Your task to perform on an android device: uninstall "TextNow: Call + Text Unlimited" Image 0: 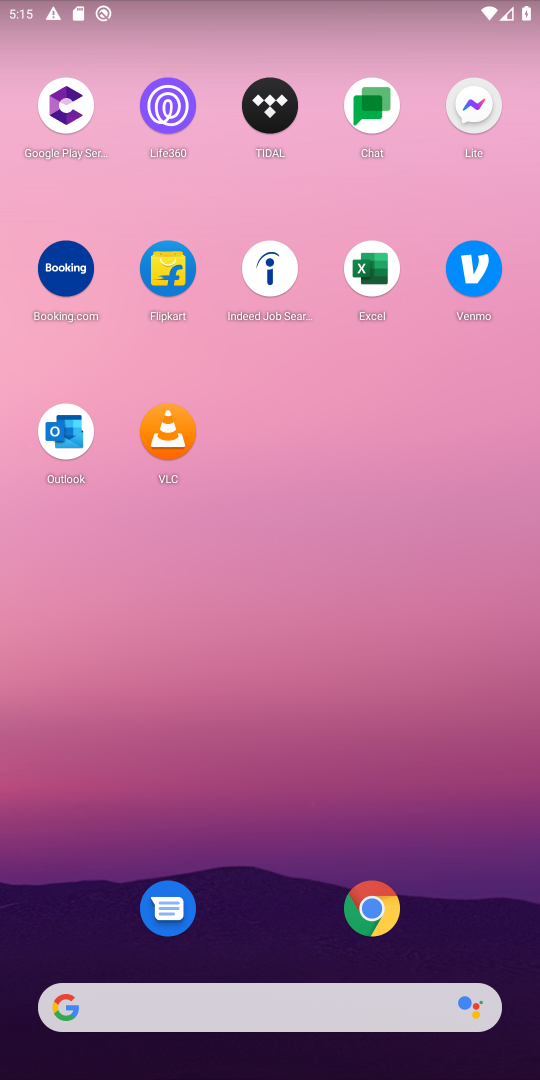
Step 0: drag from (220, 522) to (226, 49)
Your task to perform on an android device: uninstall "TextNow: Call + Text Unlimited" Image 1: 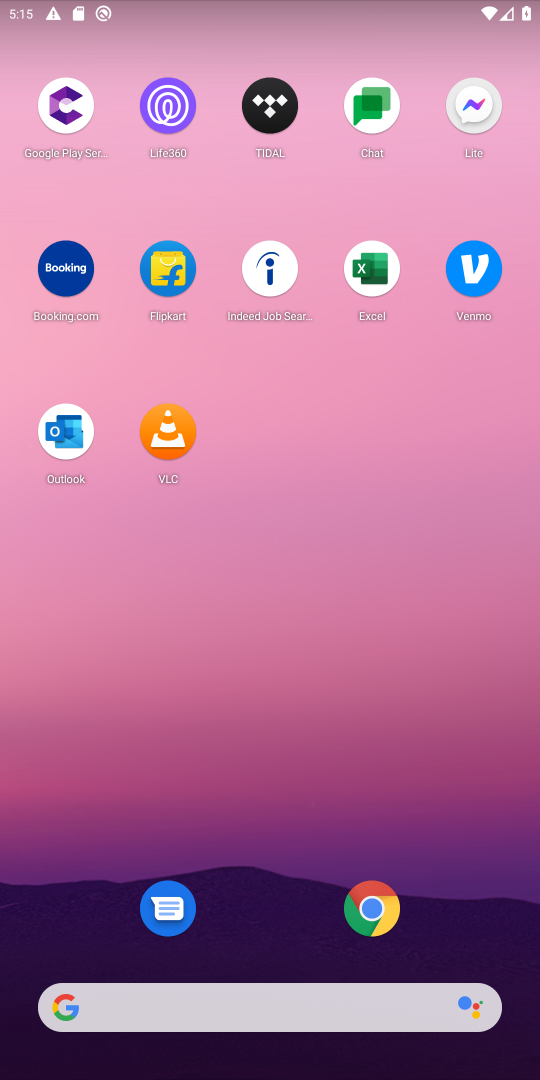
Step 1: drag from (269, 409) to (296, 73)
Your task to perform on an android device: uninstall "TextNow: Call + Text Unlimited" Image 2: 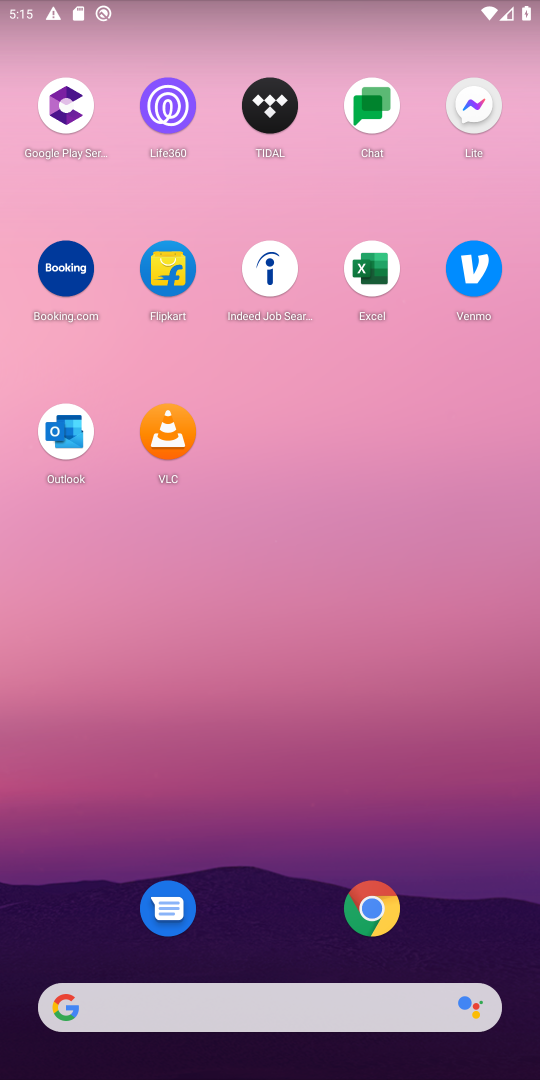
Step 2: drag from (271, 900) to (320, 0)
Your task to perform on an android device: uninstall "TextNow: Call + Text Unlimited" Image 3: 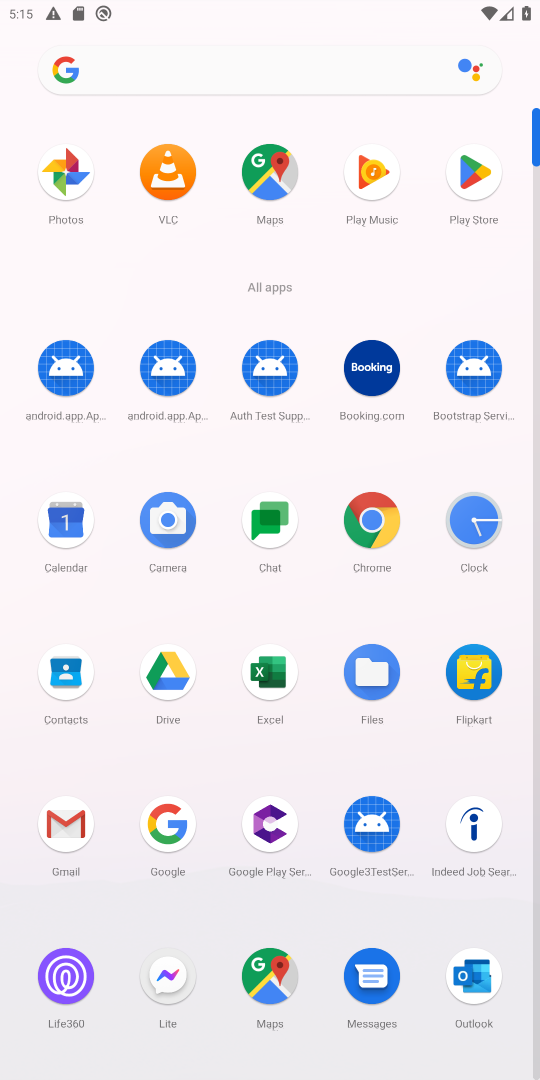
Step 3: click (468, 218)
Your task to perform on an android device: uninstall "TextNow: Call + Text Unlimited" Image 4: 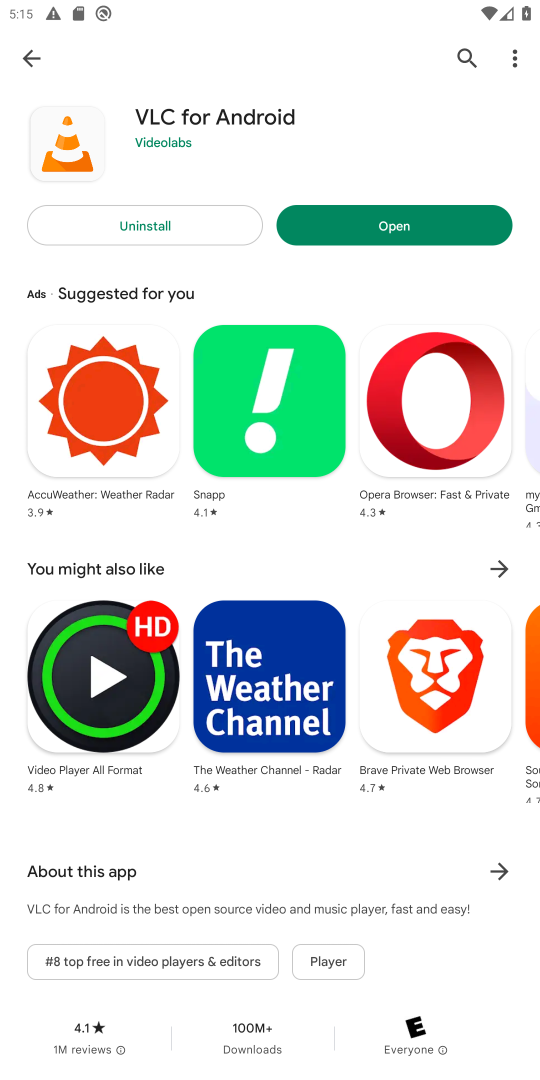
Step 4: click (34, 52)
Your task to perform on an android device: uninstall "TextNow: Call + Text Unlimited" Image 5: 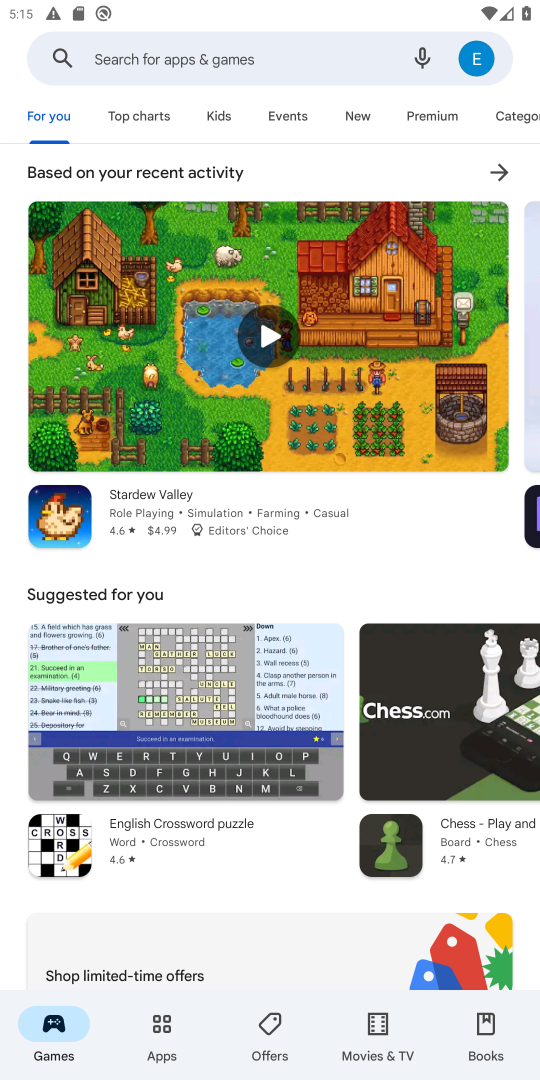
Step 5: click (169, 47)
Your task to perform on an android device: uninstall "TextNow: Call + Text Unlimited" Image 6: 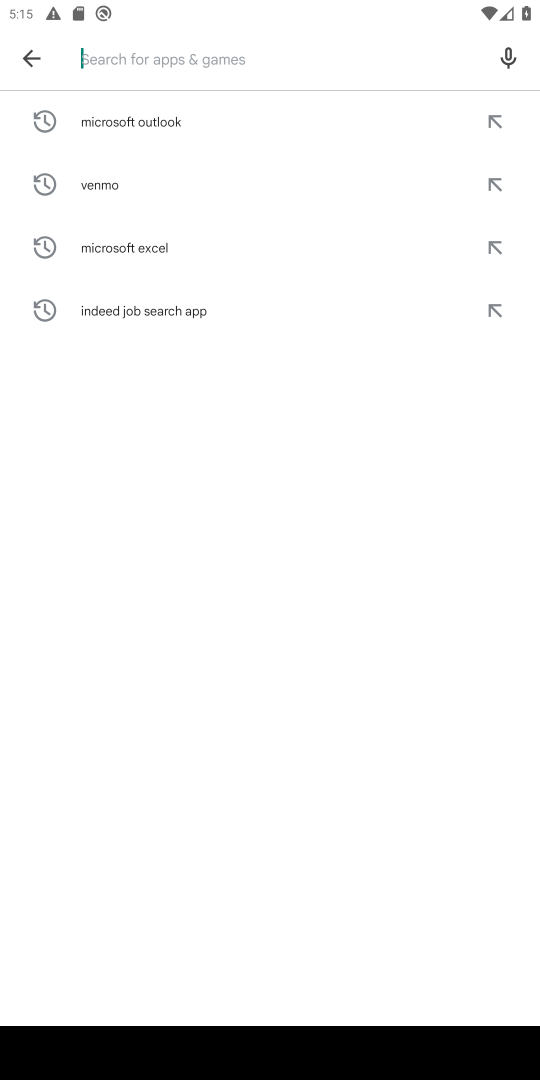
Step 6: type "TextNow: Call + Text Unlimited"
Your task to perform on an android device: uninstall "TextNow: Call + Text Unlimited" Image 7: 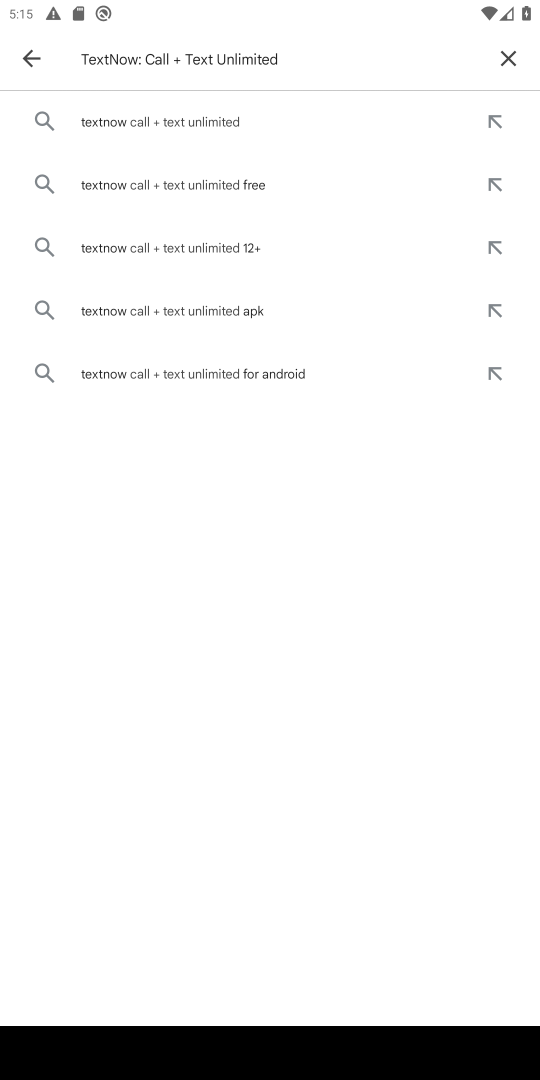
Step 7: click (190, 126)
Your task to perform on an android device: uninstall "TextNow: Call + Text Unlimited" Image 8: 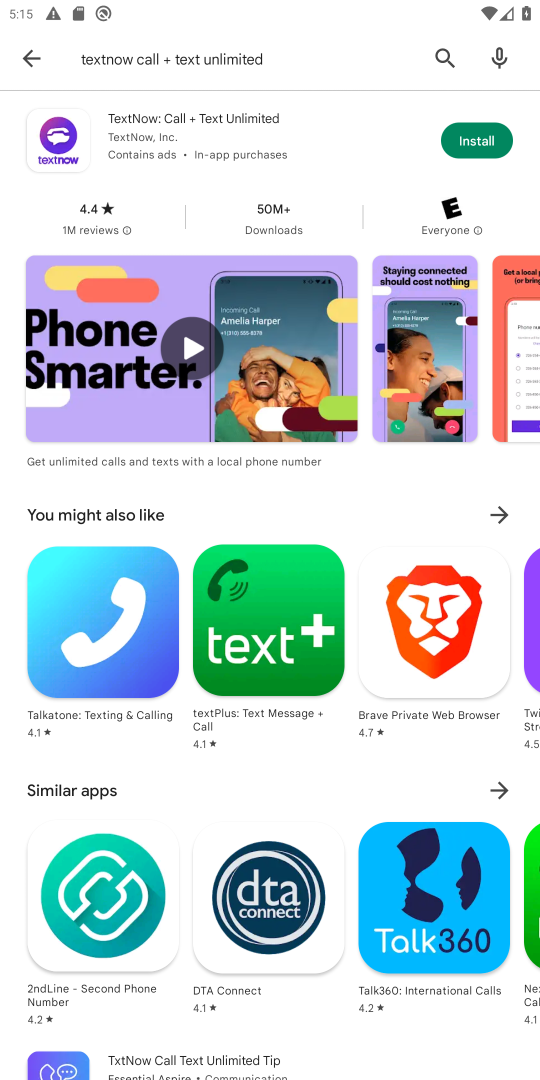
Step 8: task complete